Your task to perform on an android device: delete a single message in the gmail app Image 0: 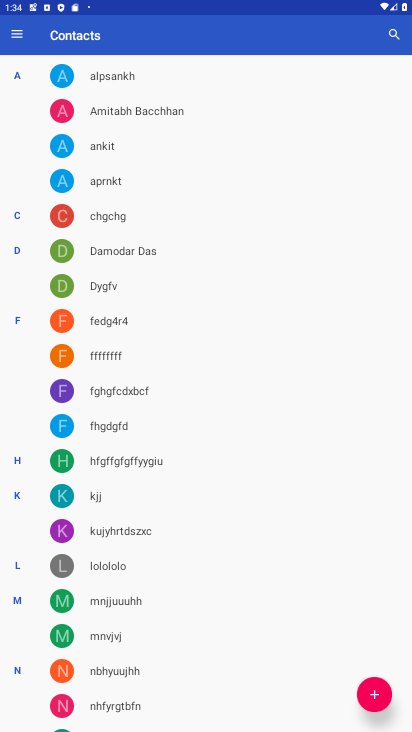
Step 0: press home button
Your task to perform on an android device: delete a single message in the gmail app Image 1: 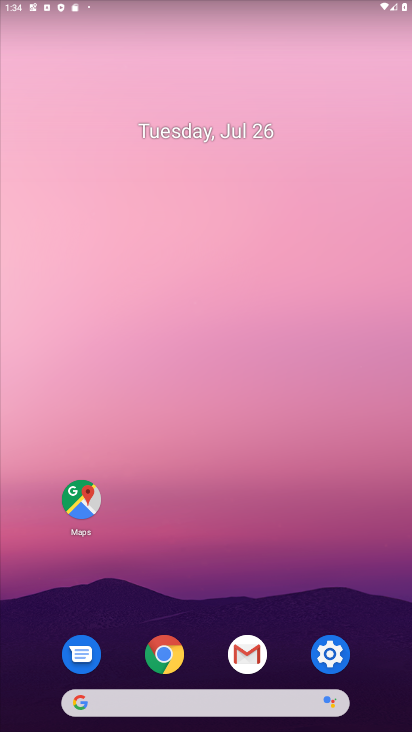
Step 1: click (245, 653)
Your task to perform on an android device: delete a single message in the gmail app Image 2: 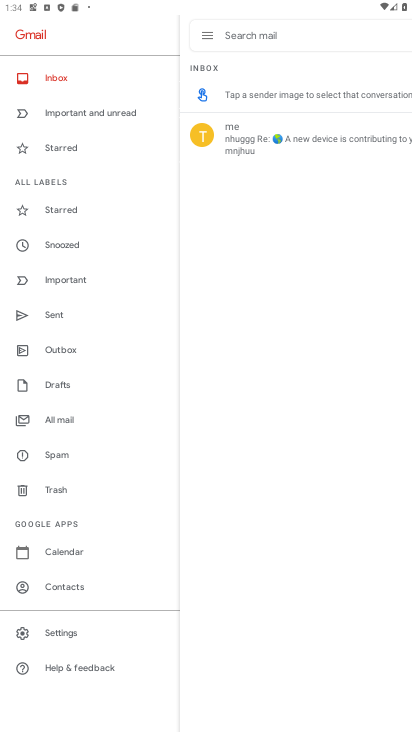
Step 2: click (75, 422)
Your task to perform on an android device: delete a single message in the gmail app Image 3: 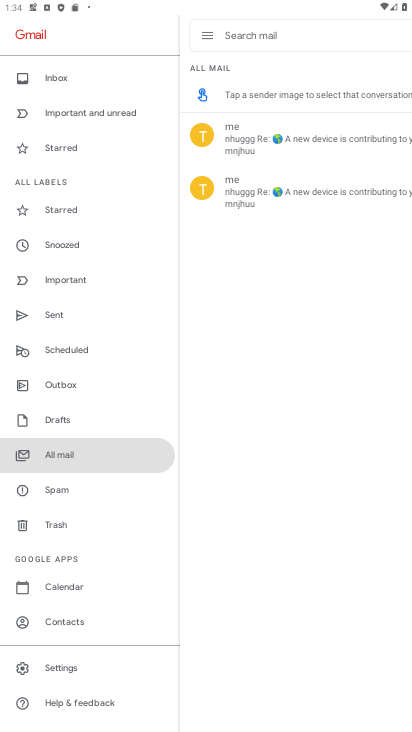
Step 3: click (345, 358)
Your task to perform on an android device: delete a single message in the gmail app Image 4: 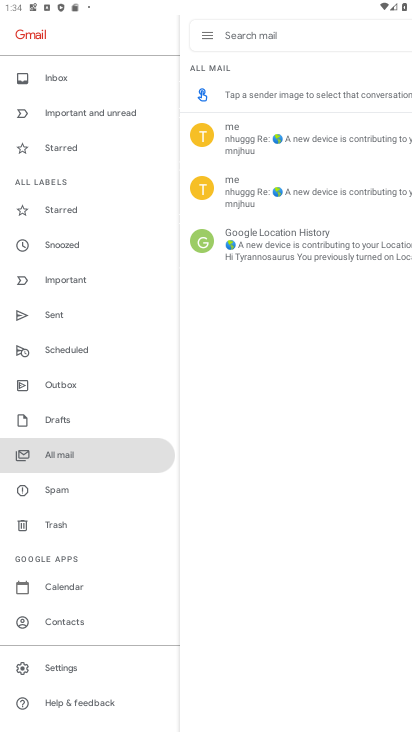
Step 4: click (226, 123)
Your task to perform on an android device: delete a single message in the gmail app Image 5: 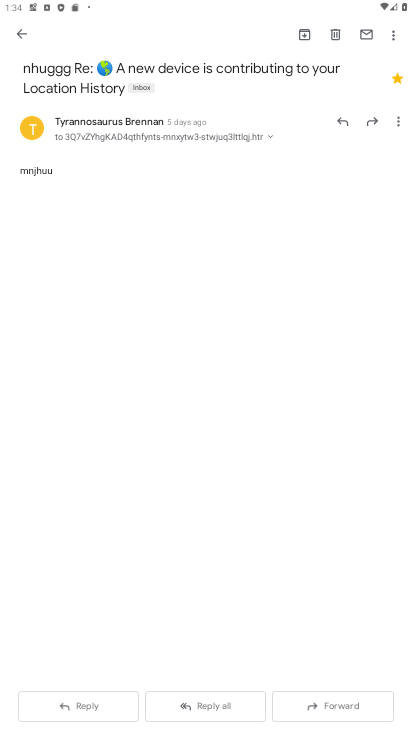
Step 5: click (337, 33)
Your task to perform on an android device: delete a single message in the gmail app Image 6: 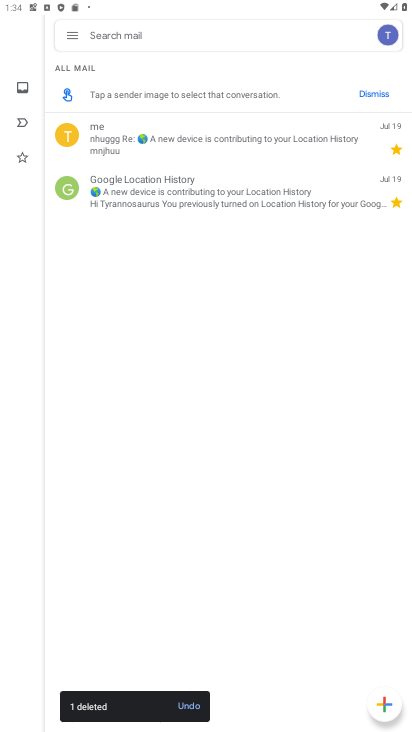
Step 6: task complete